Your task to perform on an android device: Open Google Maps and go to "Timeline" Image 0: 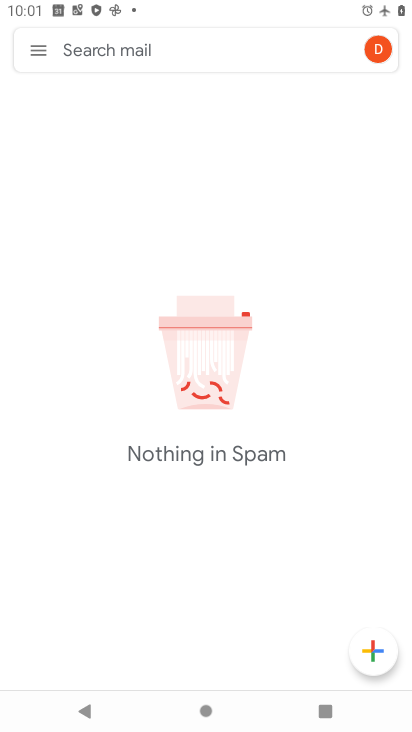
Step 0: press home button
Your task to perform on an android device: Open Google Maps and go to "Timeline" Image 1: 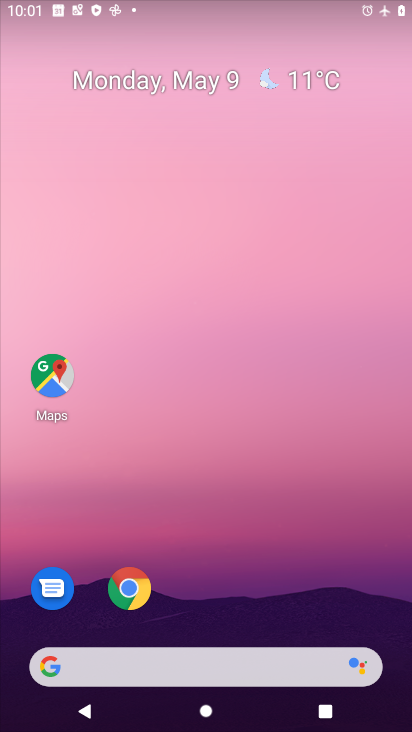
Step 1: drag from (326, 615) to (274, 78)
Your task to perform on an android device: Open Google Maps and go to "Timeline" Image 2: 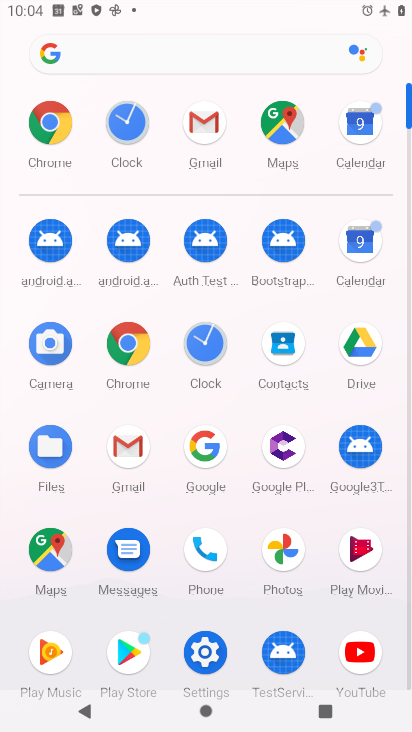
Step 2: click (28, 558)
Your task to perform on an android device: Open Google Maps and go to "Timeline" Image 3: 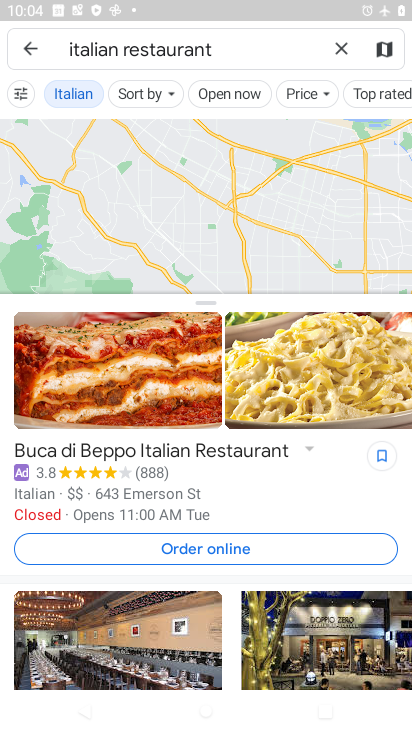
Step 3: click (340, 41)
Your task to perform on an android device: Open Google Maps and go to "Timeline" Image 4: 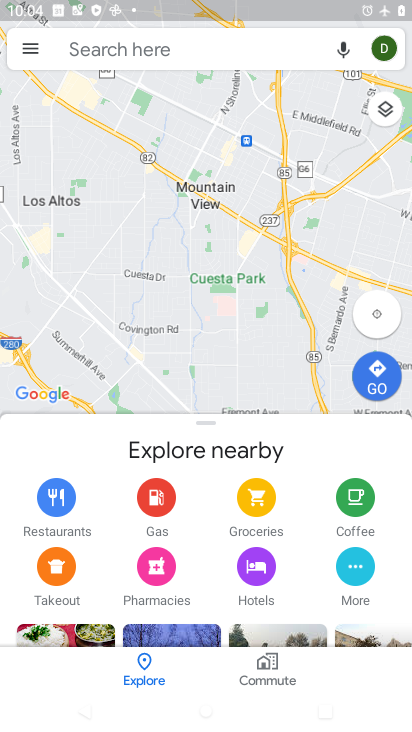
Step 4: click (29, 47)
Your task to perform on an android device: Open Google Maps and go to "Timeline" Image 5: 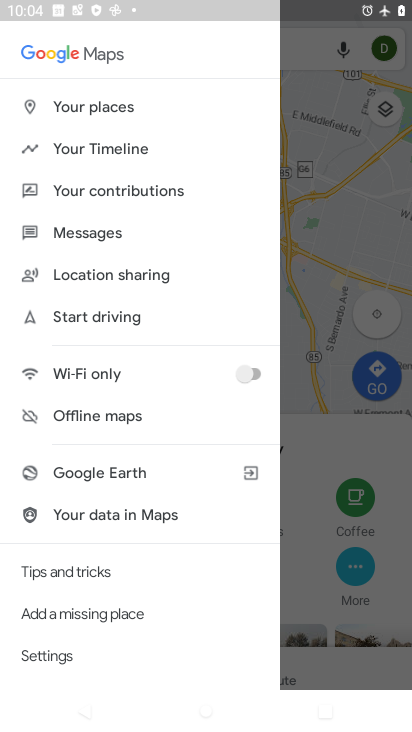
Step 5: click (105, 144)
Your task to perform on an android device: Open Google Maps and go to "Timeline" Image 6: 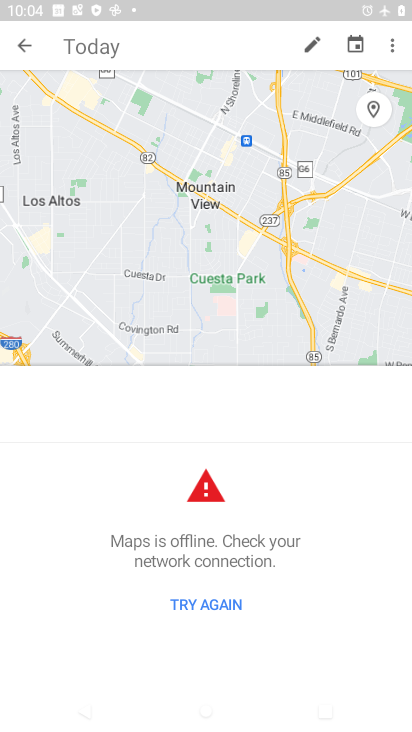
Step 6: task complete